Your task to perform on an android device: Show me productivity apps on the Play Store Image 0: 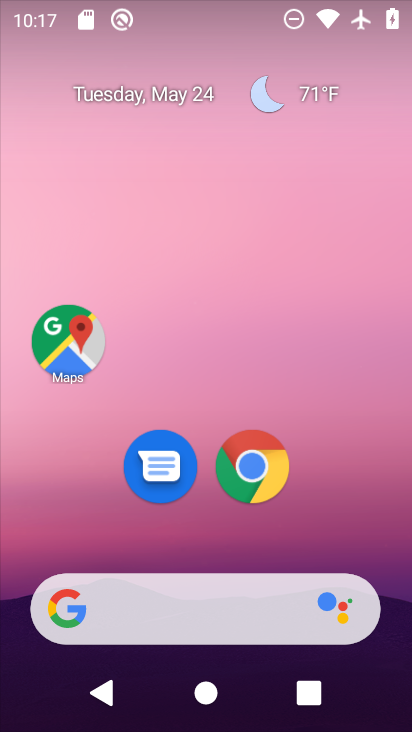
Step 0: drag from (223, 534) to (250, 44)
Your task to perform on an android device: Show me productivity apps on the Play Store Image 1: 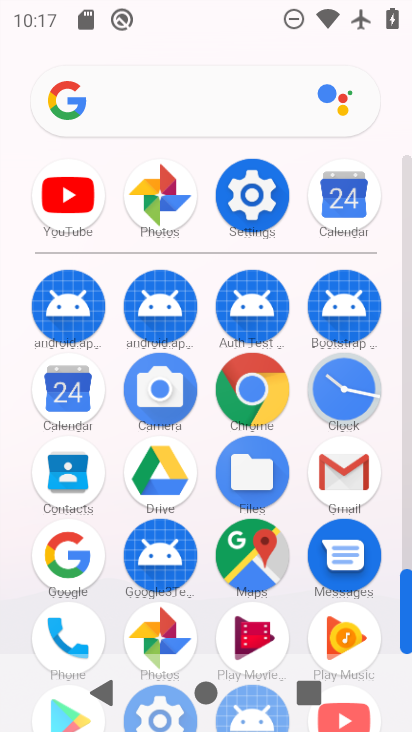
Step 1: drag from (124, 651) to (142, 418)
Your task to perform on an android device: Show me productivity apps on the Play Store Image 2: 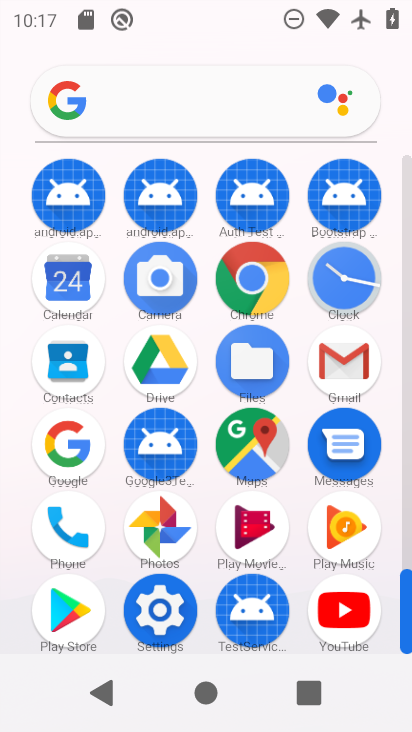
Step 2: click (69, 608)
Your task to perform on an android device: Show me productivity apps on the Play Store Image 3: 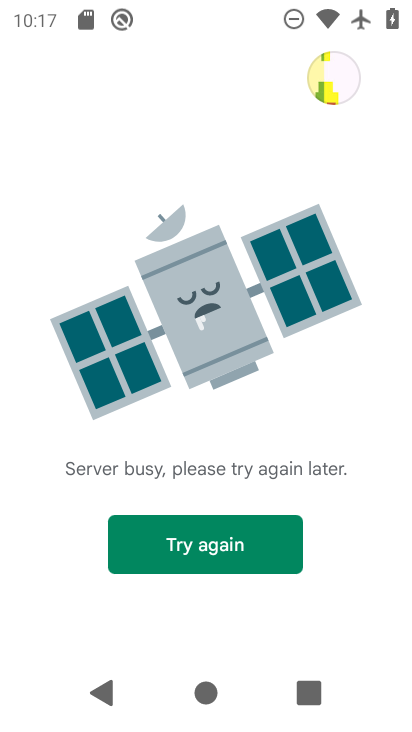
Step 3: click (178, 538)
Your task to perform on an android device: Show me productivity apps on the Play Store Image 4: 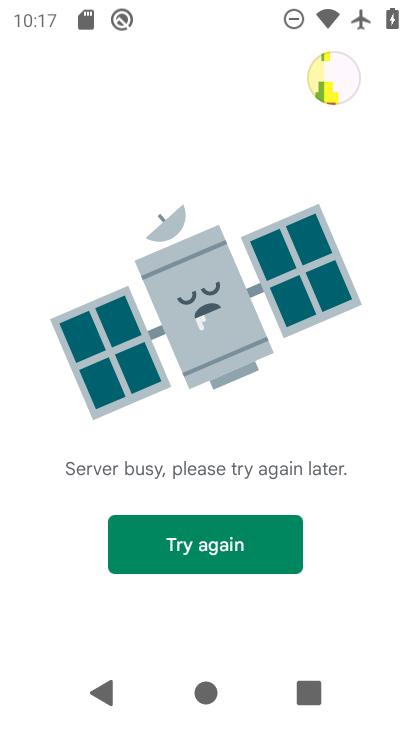
Step 4: click (174, 540)
Your task to perform on an android device: Show me productivity apps on the Play Store Image 5: 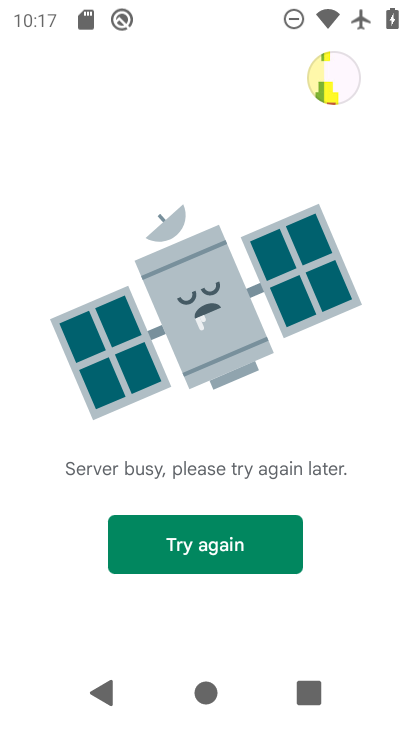
Step 5: task complete